Your task to perform on an android device: toggle priority inbox in the gmail app Image 0: 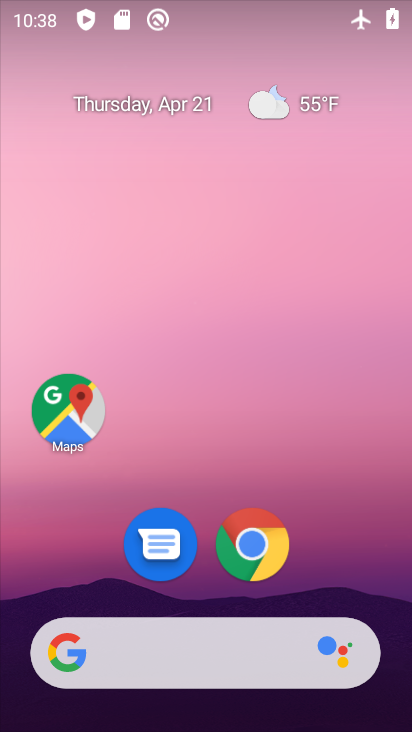
Step 0: drag from (282, 402) to (184, 21)
Your task to perform on an android device: toggle priority inbox in the gmail app Image 1: 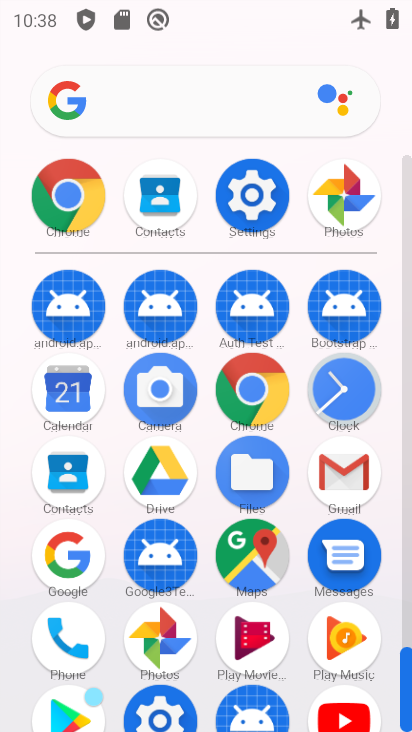
Step 1: click (343, 466)
Your task to perform on an android device: toggle priority inbox in the gmail app Image 2: 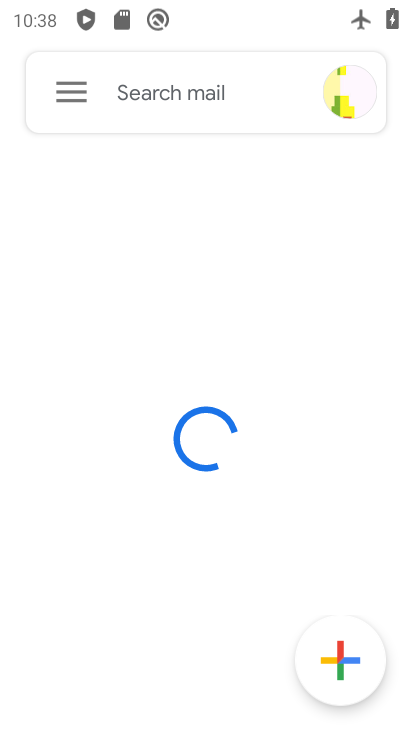
Step 2: click (86, 86)
Your task to perform on an android device: toggle priority inbox in the gmail app Image 3: 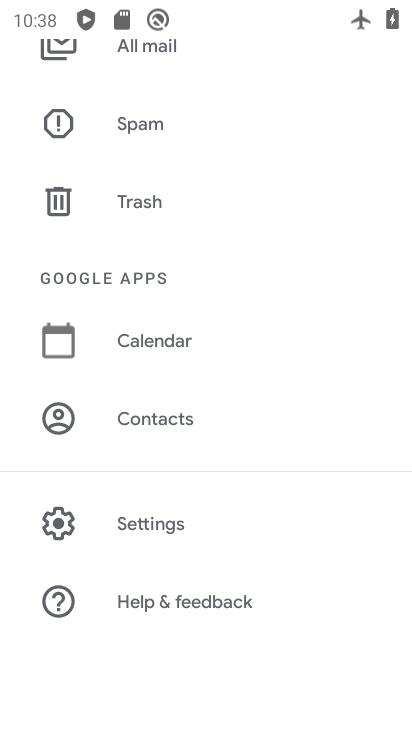
Step 3: click (191, 527)
Your task to perform on an android device: toggle priority inbox in the gmail app Image 4: 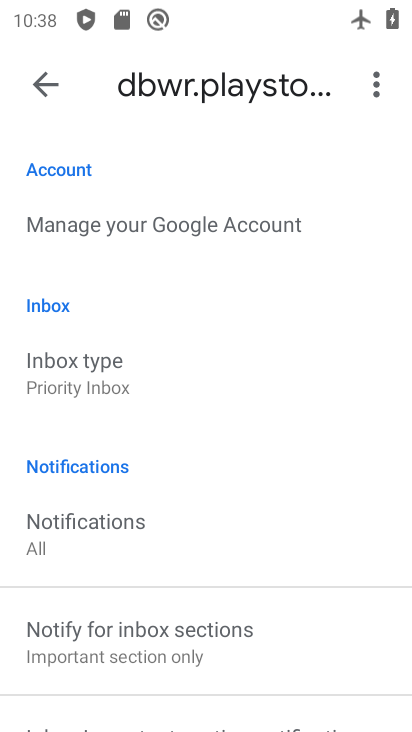
Step 4: click (166, 370)
Your task to perform on an android device: toggle priority inbox in the gmail app Image 5: 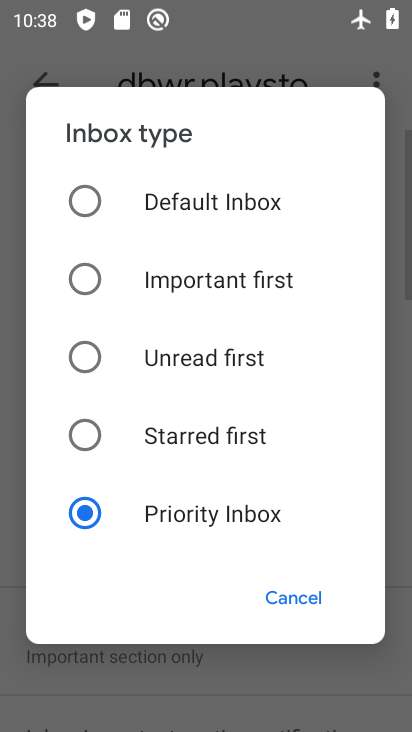
Step 5: click (168, 215)
Your task to perform on an android device: toggle priority inbox in the gmail app Image 6: 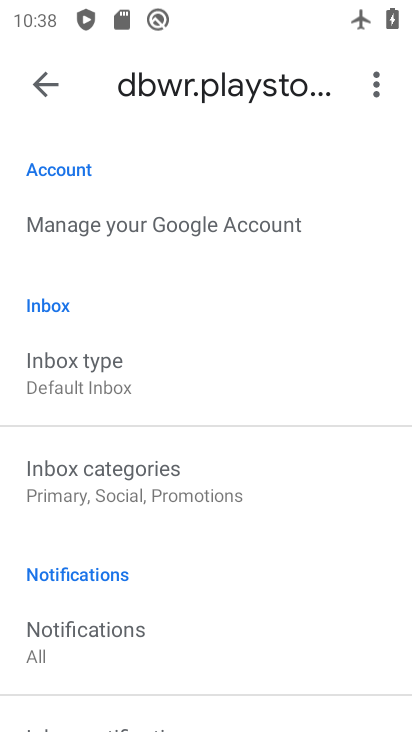
Step 6: task complete